Your task to perform on an android device: Is it going to rain this weekend? Image 0: 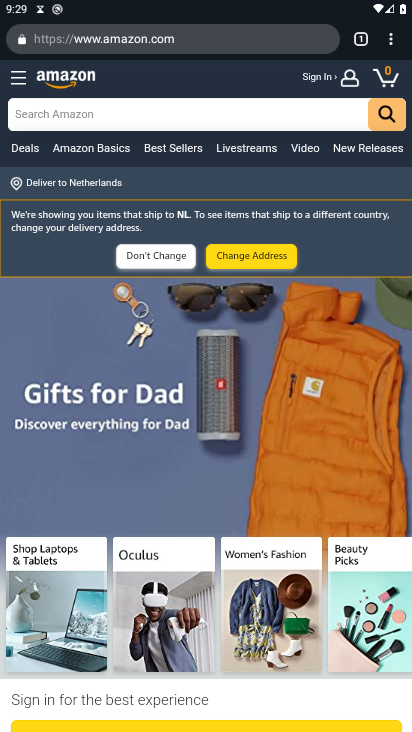
Step 0: press home button
Your task to perform on an android device: Is it going to rain this weekend? Image 1: 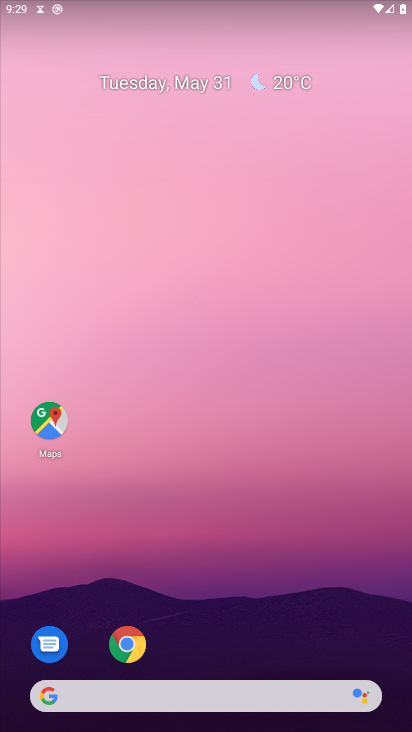
Step 1: drag from (221, 656) to (206, 80)
Your task to perform on an android device: Is it going to rain this weekend? Image 2: 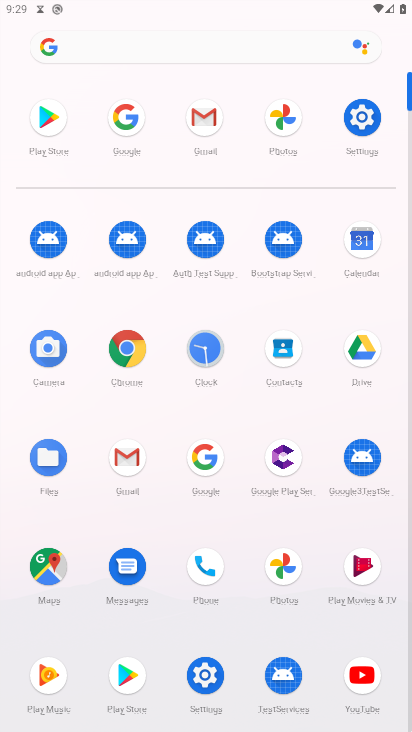
Step 2: press back button
Your task to perform on an android device: Is it going to rain this weekend? Image 3: 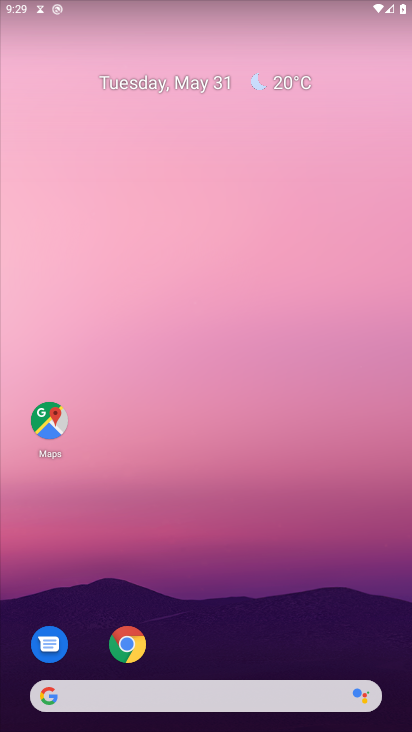
Step 3: click (288, 78)
Your task to perform on an android device: Is it going to rain this weekend? Image 4: 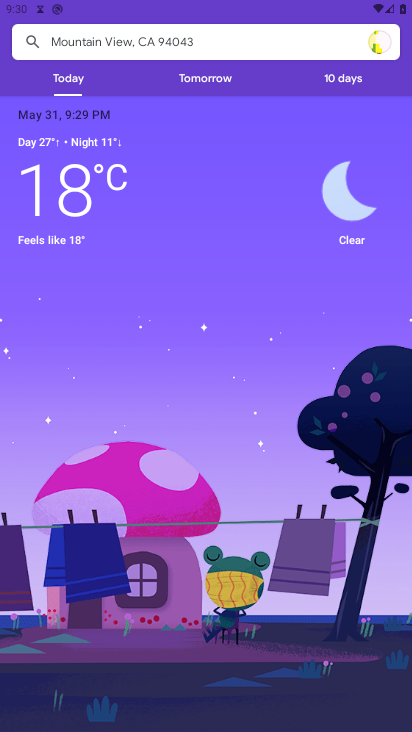
Step 4: click (348, 80)
Your task to perform on an android device: Is it going to rain this weekend? Image 5: 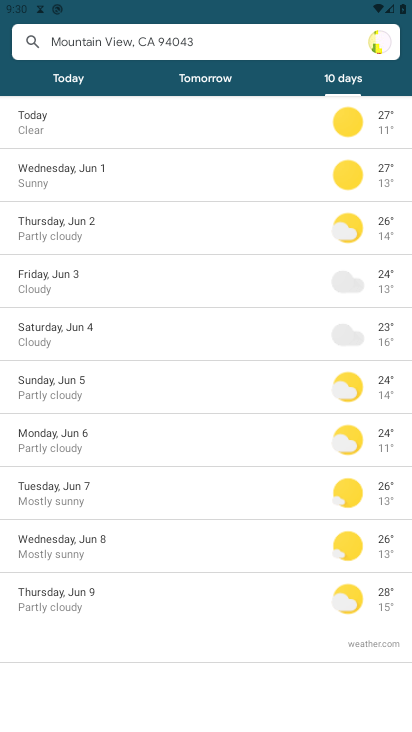
Step 5: task complete